Your task to perform on an android device: Open the map Image 0: 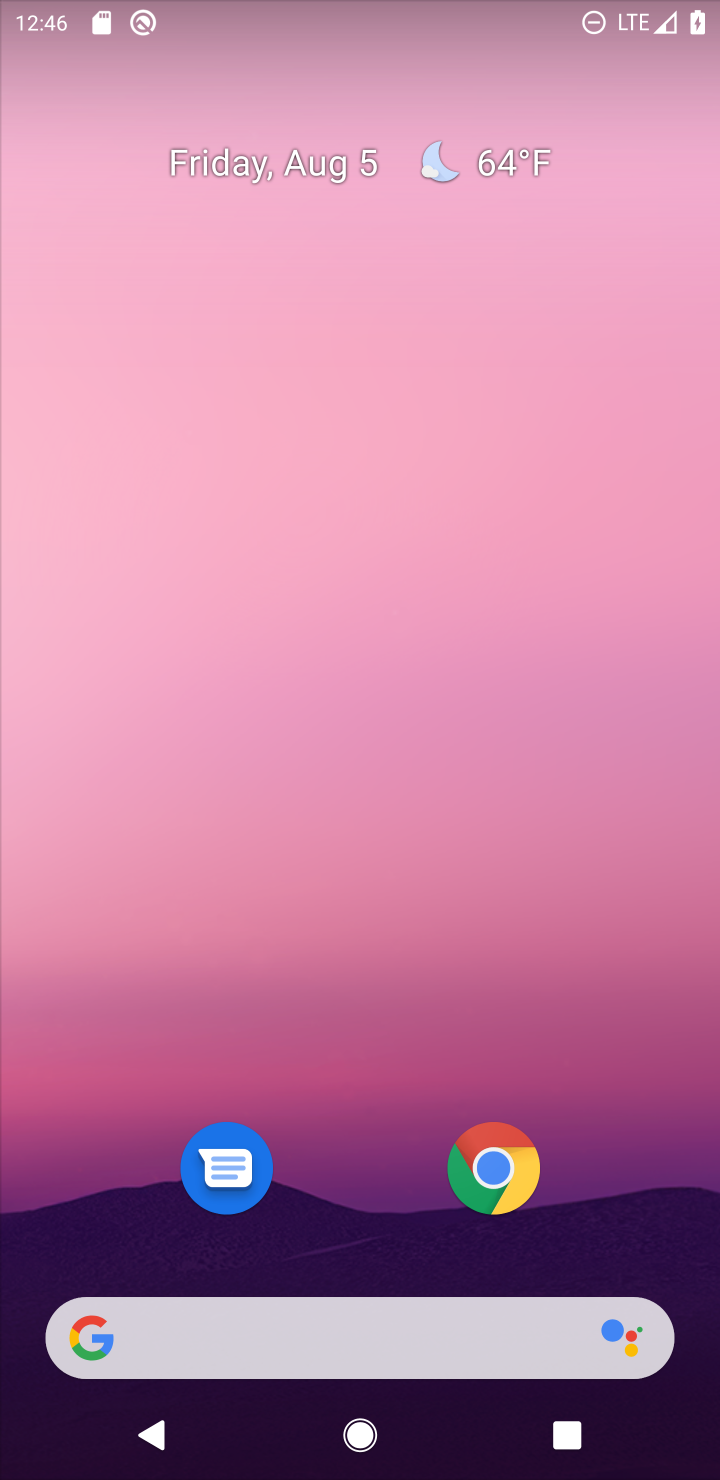
Step 0: click (505, 1148)
Your task to perform on an android device: Open the map Image 1: 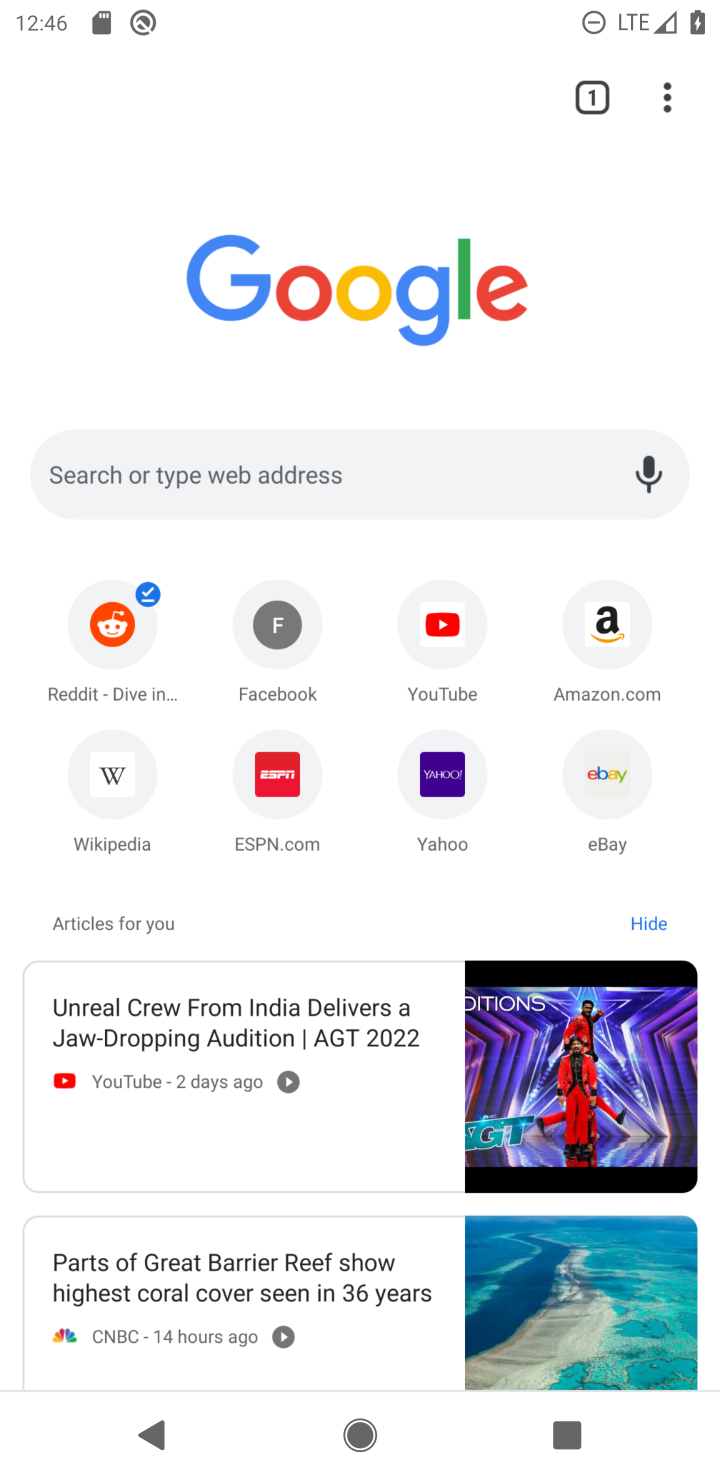
Step 1: press home button
Your task to perform on an android device: Open the map Image 2: 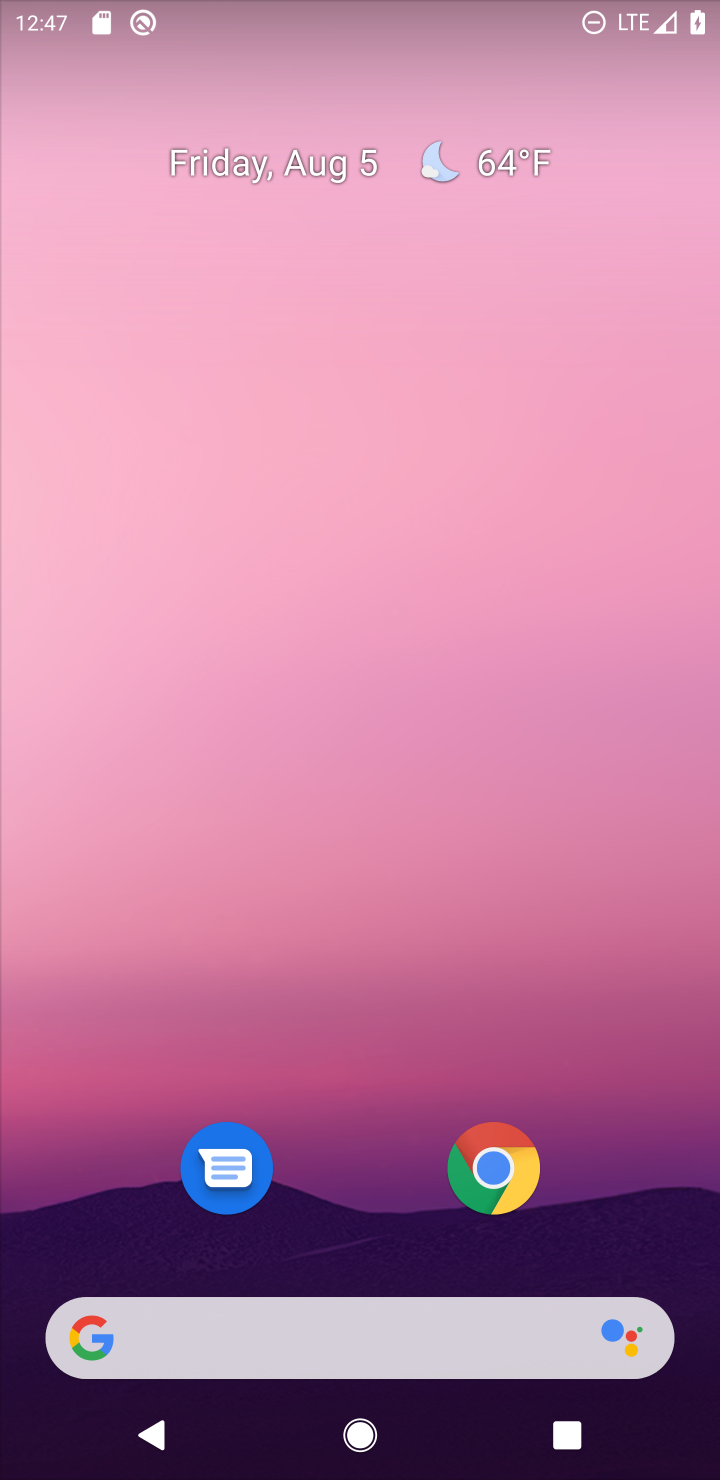
Step 2: drag from (605, 1175) to (485, 75)
Your task to perform on an android device: Open the map Image 3: 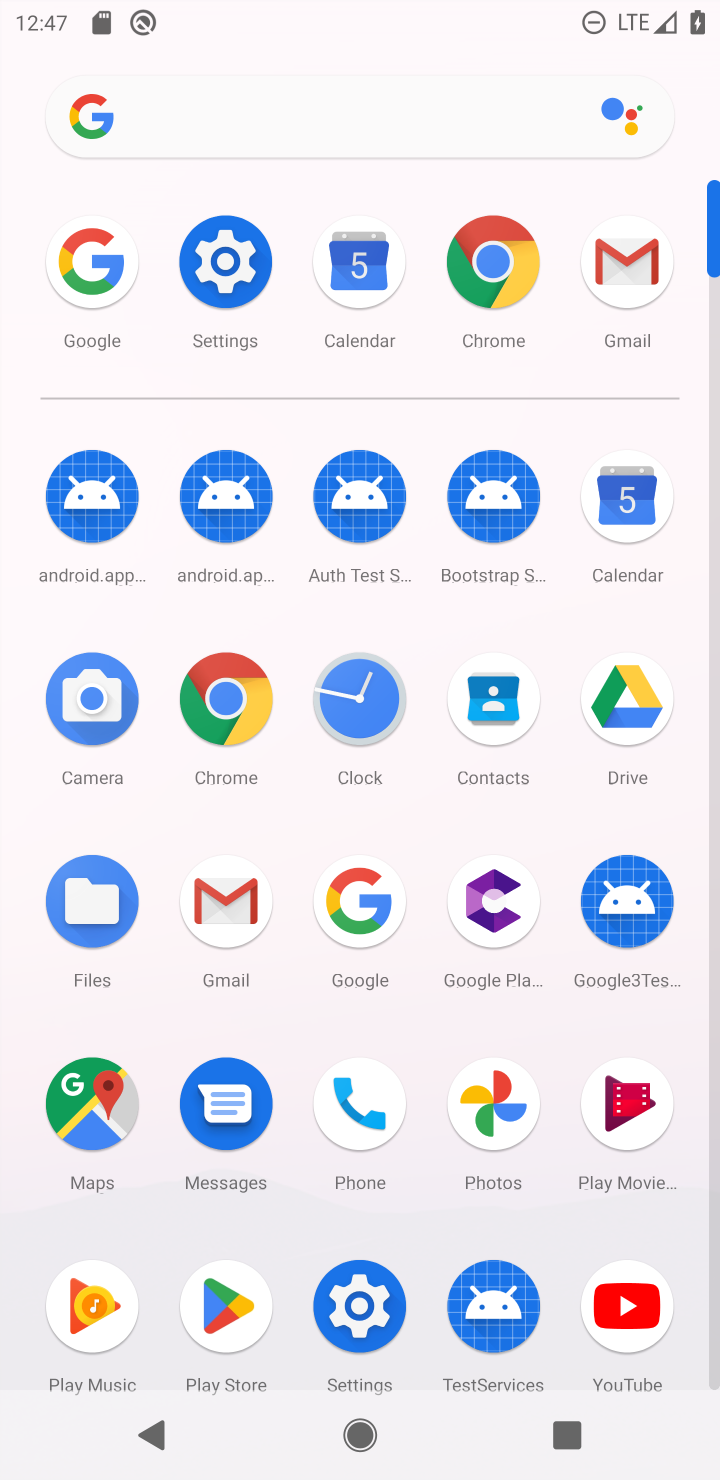
Step 3: click (77, 1128)
Your task to perform on an android device: Open the map Image 4: 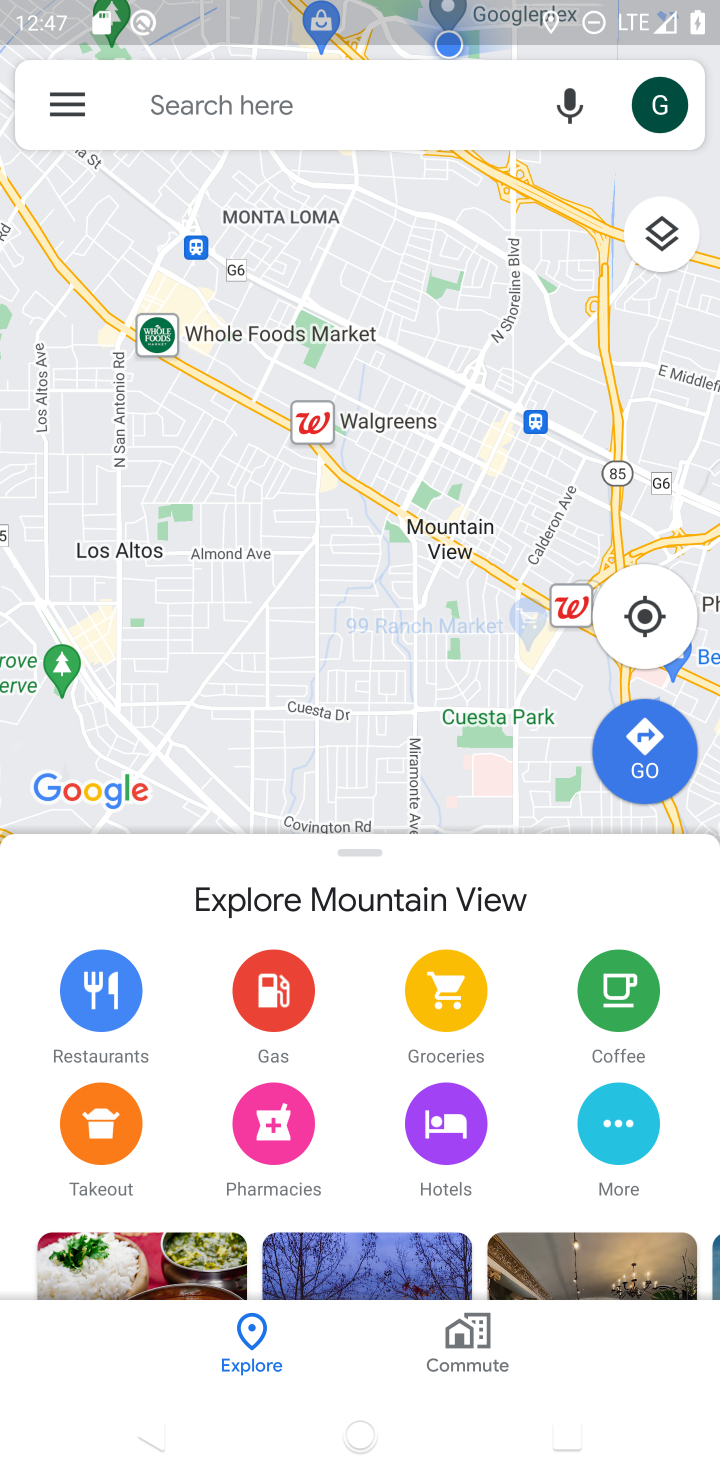
Step 4: task complete